Your task to perform on an android device: see tabs open on other devices in the chrome app Image 0: 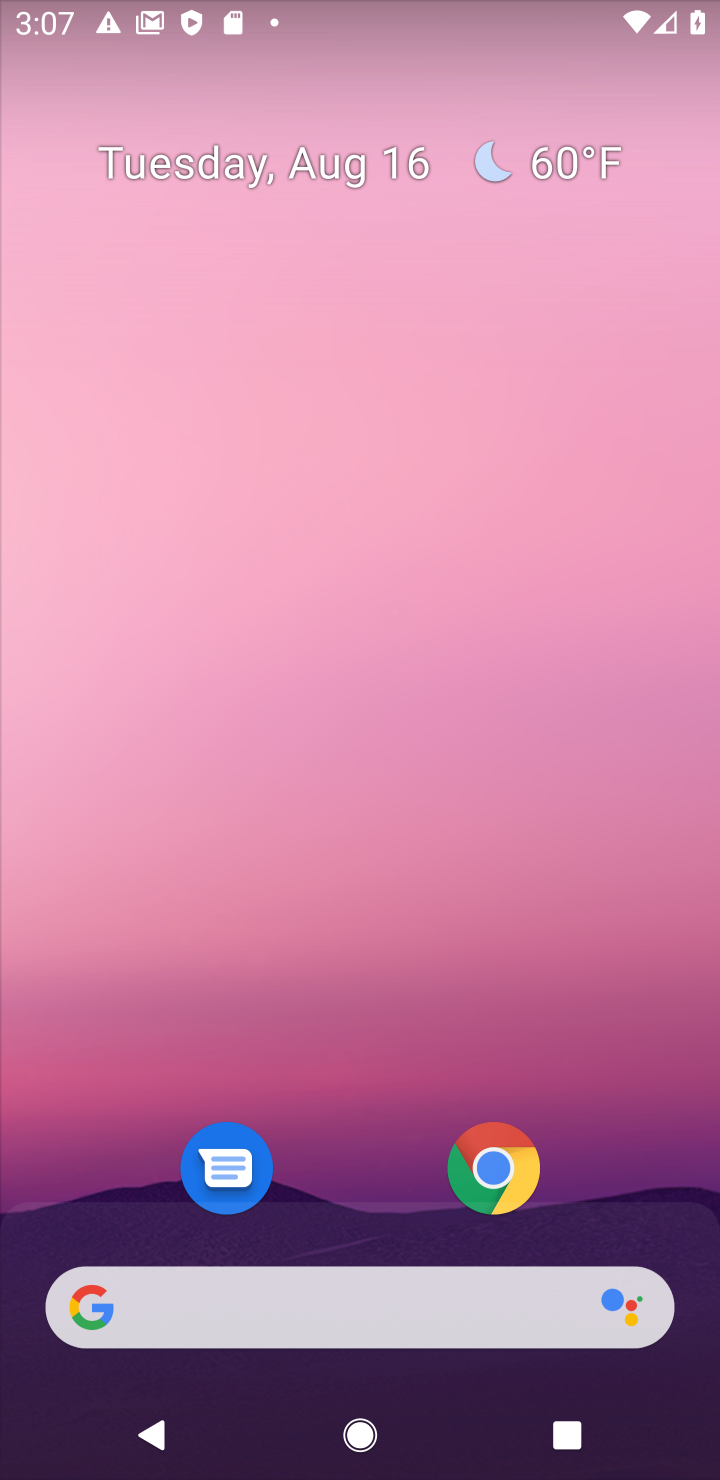
Step 0: click (492, 1176)
Your task to perform on an android device: see tabs open on other devices in the chrome app Image 1: 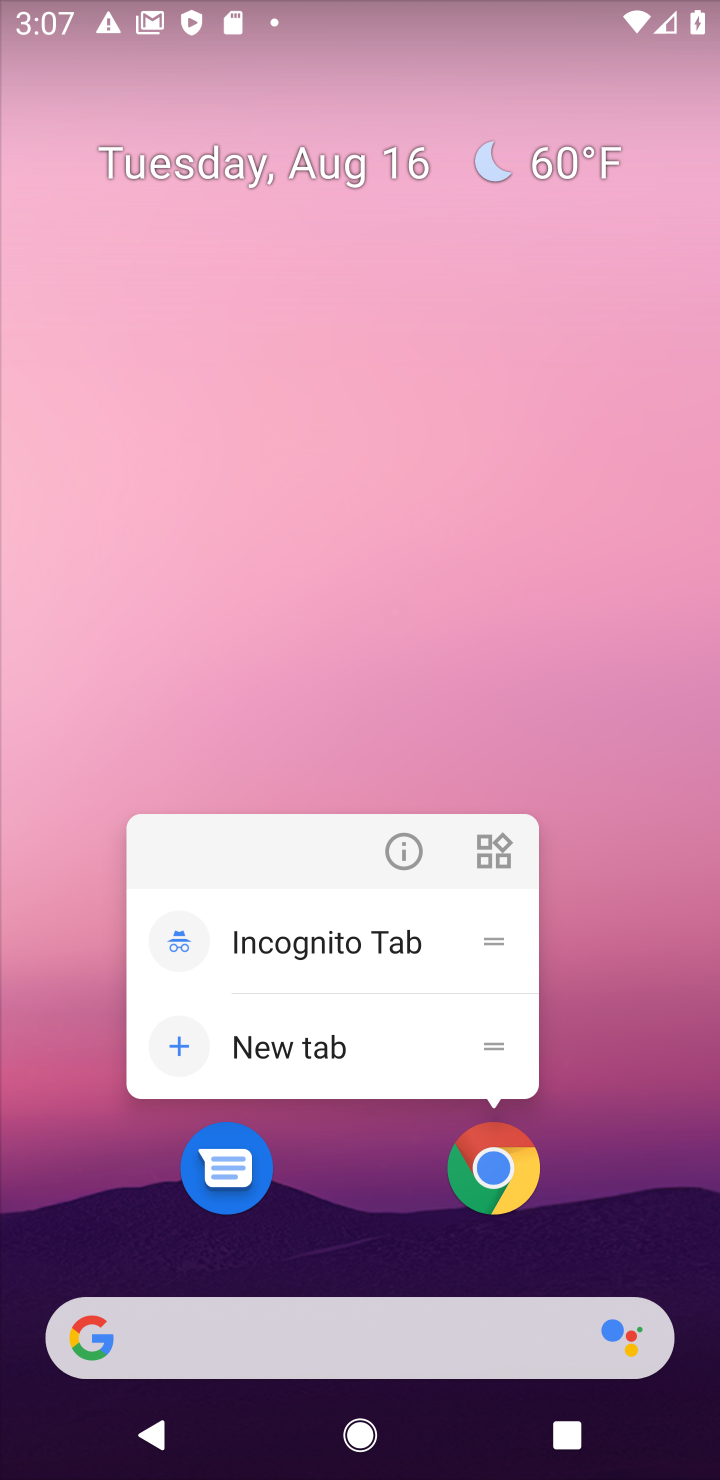
Step 1: click (492, 1187)
Your task to perform on an android device: see tabs open on other devices in the chrome app Image 2: 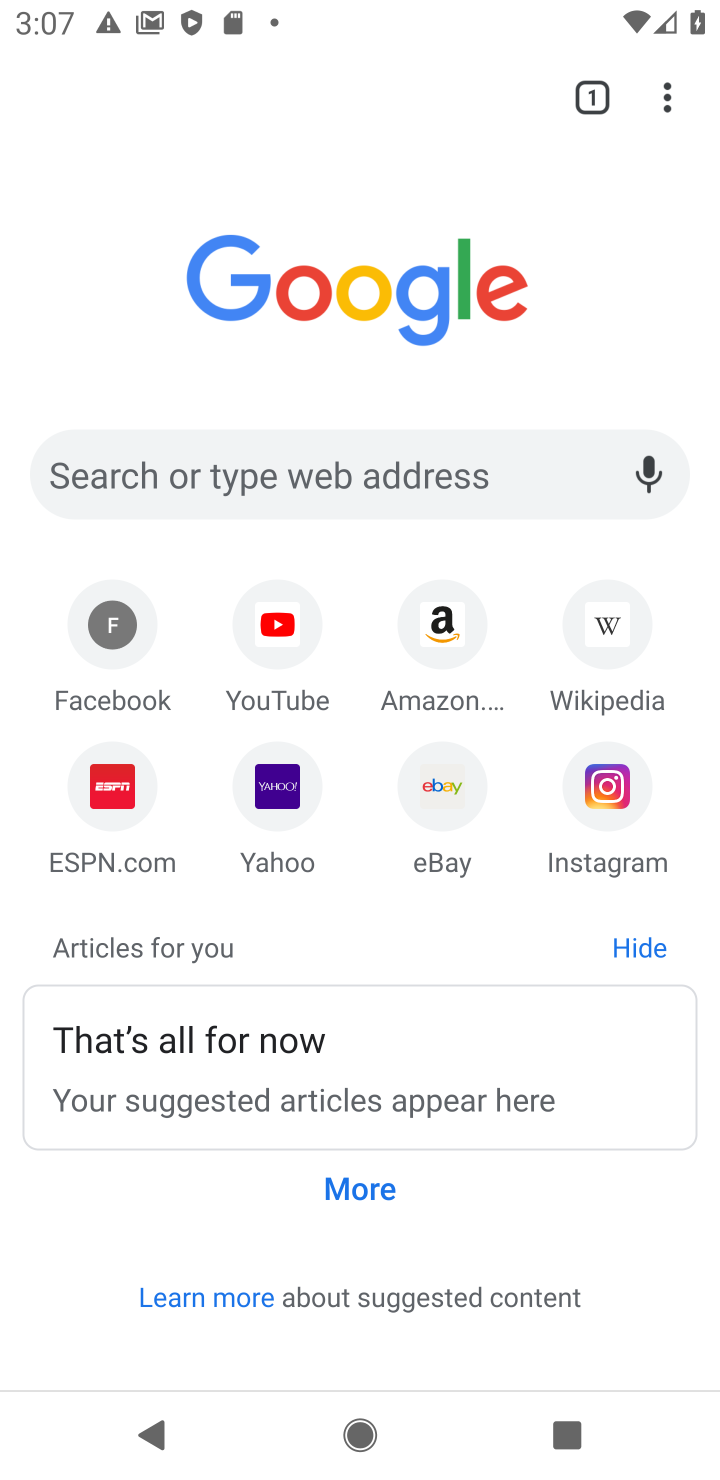
Step 2: task complete